Your task to perform on an android device: make emails show in primary in the gmail app Image 0: 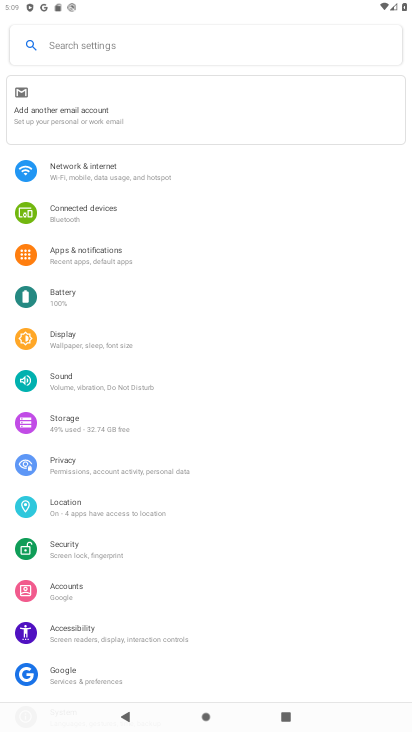
Step 0: press home button
Your task to perform on an android device: make emails show in primary in the gmail app Image 1: 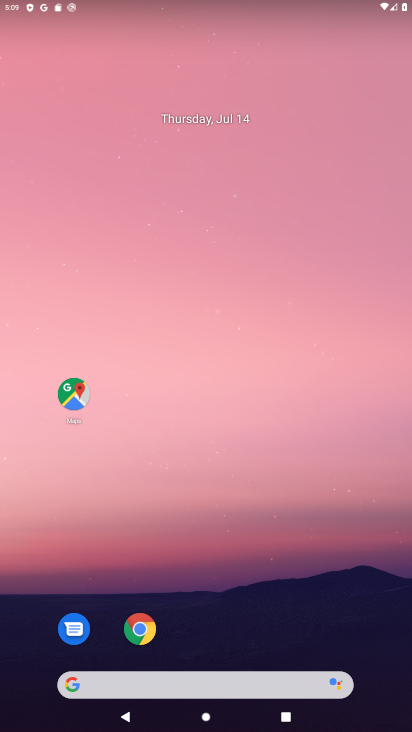
Step 1: drag from (350, 650) to (366, 112)
Your task to perform on an android device: make emails show in primary in the gmail app Image 2: 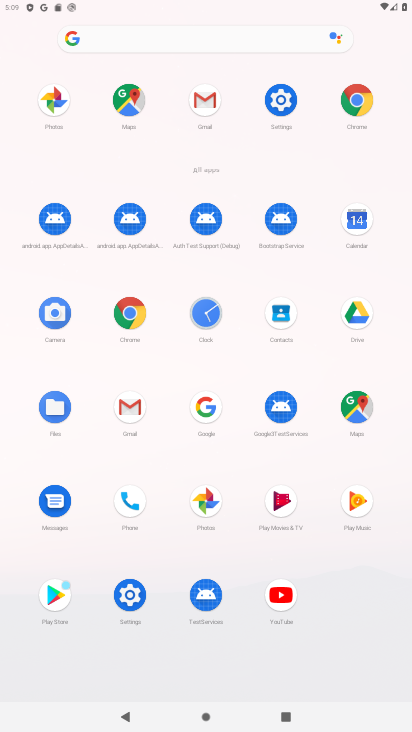
Step 2: click (119, 398)
Your task to perform on an android device: make emails show in primary in the gmail app Image 3: 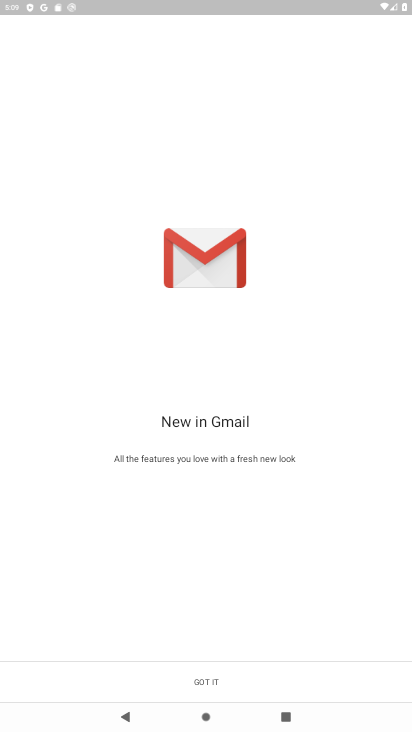
Step 3: click (291, 686)
Your task to perform on an android device: make emails show in primary in the gmail app Image 4: 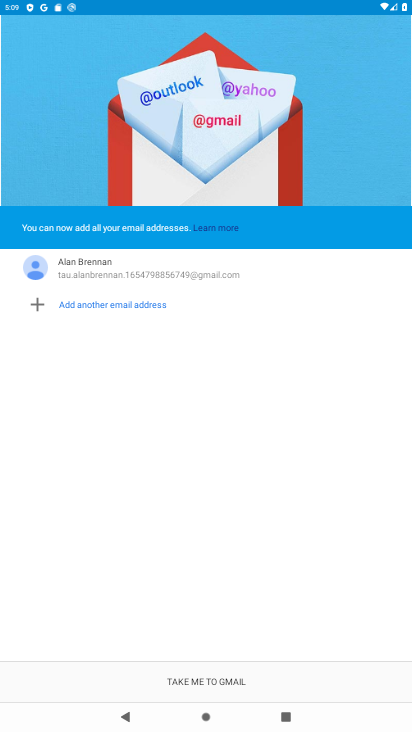
Step 4: click (291, 686)
Your task to perform on an android device: make emails show in primary in the gmail app Image 5: 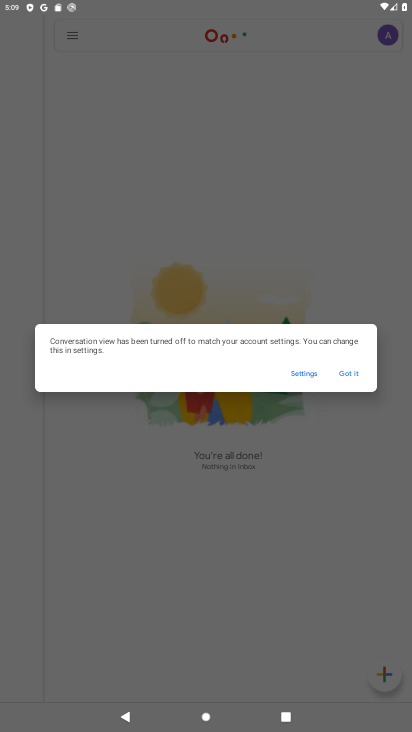
Step 5: click (352, 368)
Your task to perform on an android device: make emails show in primary in the gmail app Image 6: 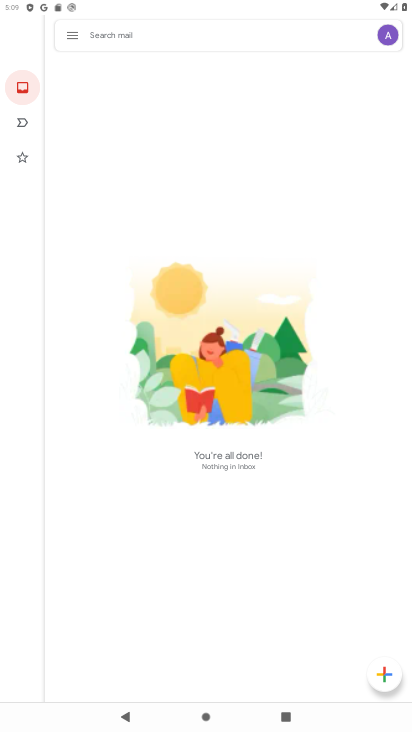
Step 6: click (76, 28)
Your task to perform on an android device: make emails show in primary in the gmail app Image 7: 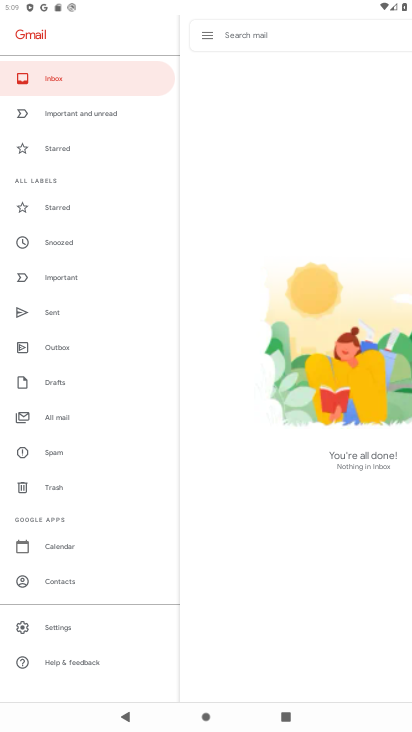
Step 7: click (52, 625)
Your task to perform on an android device: make emails show in primary in the gmail app Image 8: 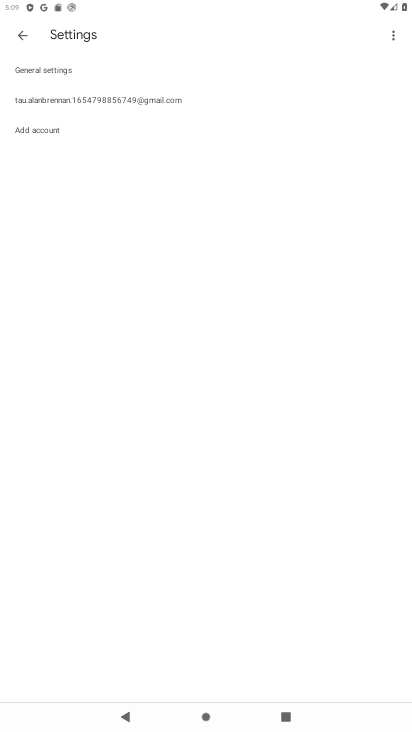
Step 8: click (114, 97)
Your task to perform on an android device: make emails show in primary in the gmail app Image 9: 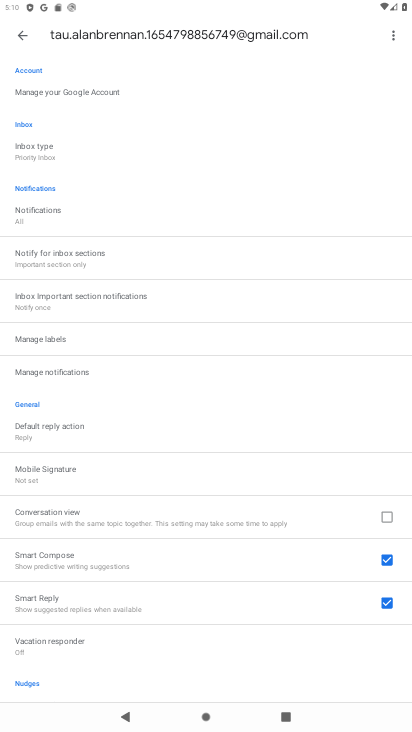
Step 9: click (71, 155)
Your task to perform on an android device: make emails show in primary in the gmail app Image 10: 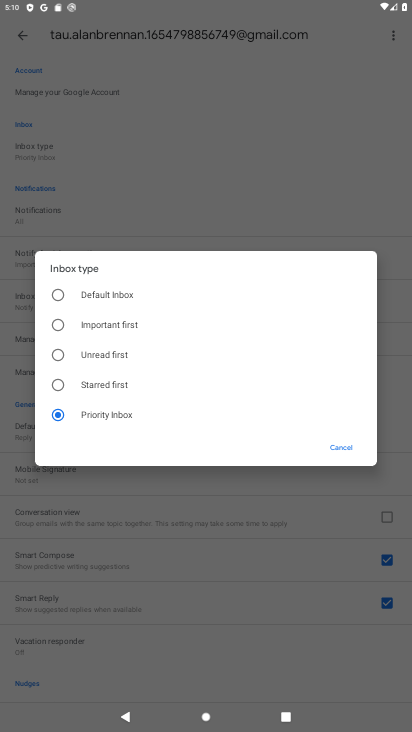
Step 10: click (61, 294)
Your task to perform on an android device: make emails show in primary in the gmail app Image 11: 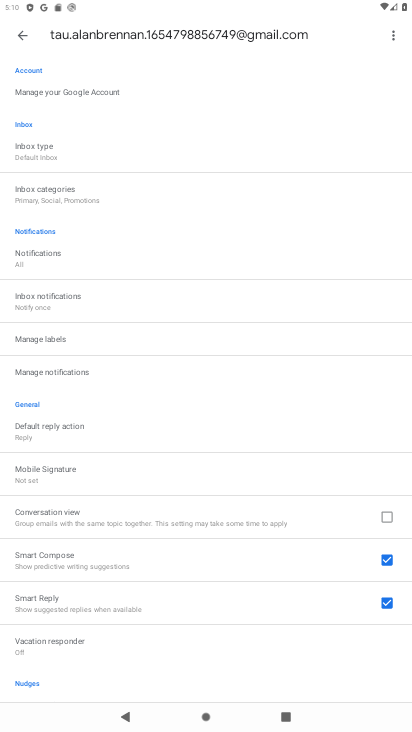
Step 11: task complete